Your task to perform on an android device: change keyboard looks Image 0: 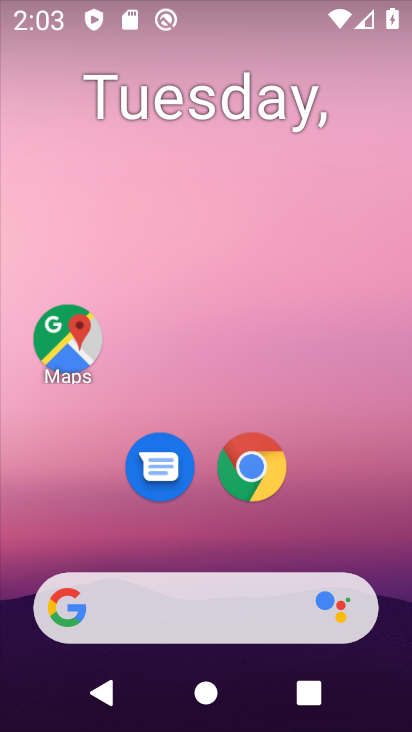
Step 0: drag from (379, 536) to (376, 118)
Your task to perform on an android device: change keyboard looks Image 1: 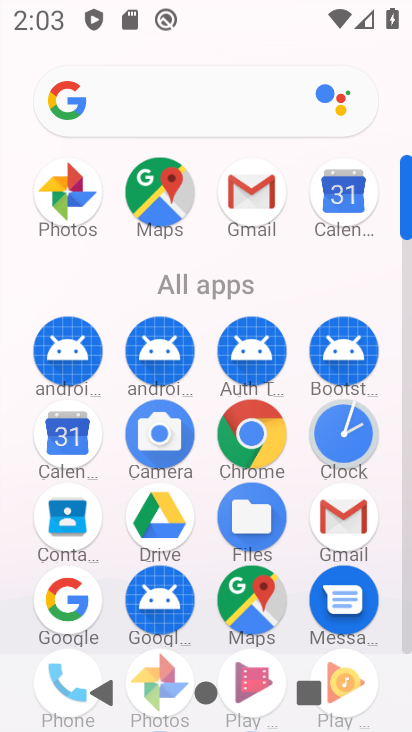
Step 1: drag from (388, 467) to (397, 197)
Your task to perform on an android device: change keyboard looks Image 2: 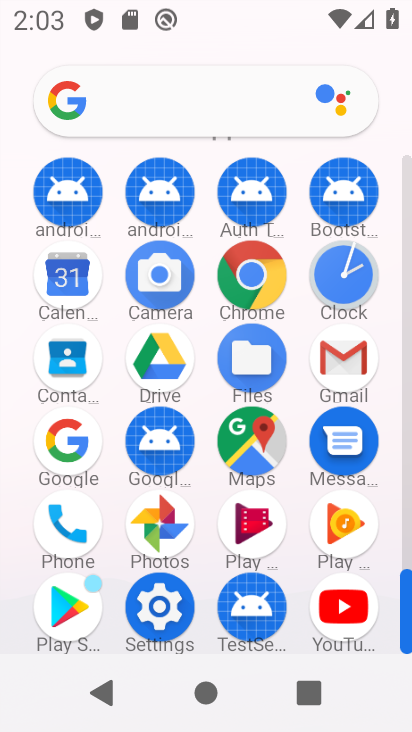
Step 2: click (172, 612)
Your task to perform on an android device: change keyboard looks Image 3: 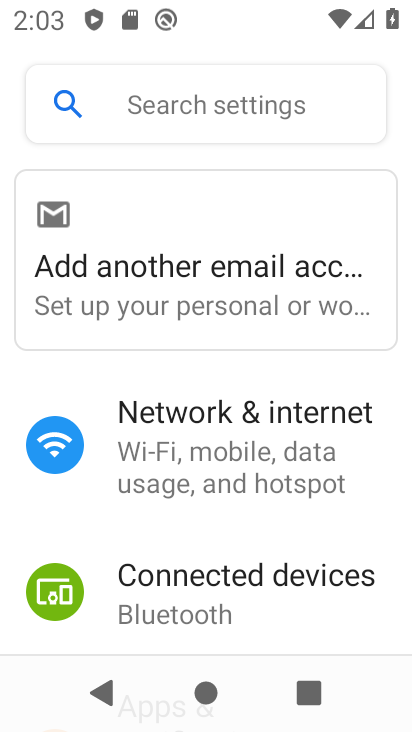
Step 3: drag from (357, 538) to (360, 341)
Your task to perform on an android device: change keyboard looks Image 4: 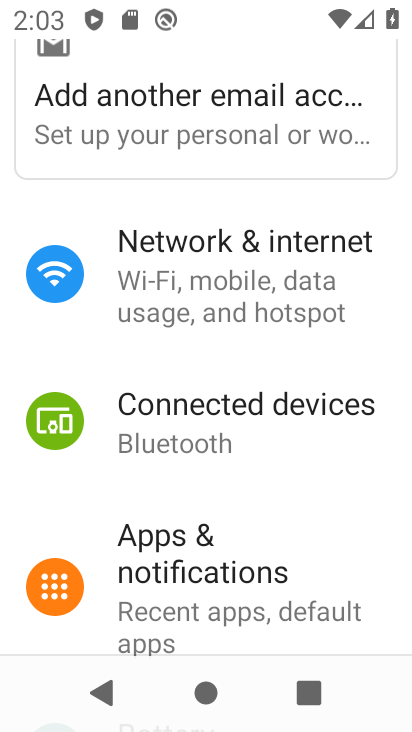
Step 4: drag from (361, 515) to (357, 359)
Your task to perform on an android device: change keyboard looks Image 5: 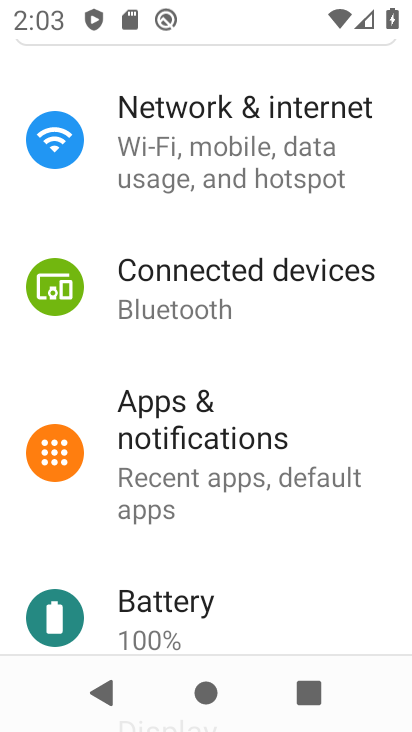
Step 5: drag from (360, 571) to (345, 381)
Your task to perform on an android device: change keyboard looks Image 6: 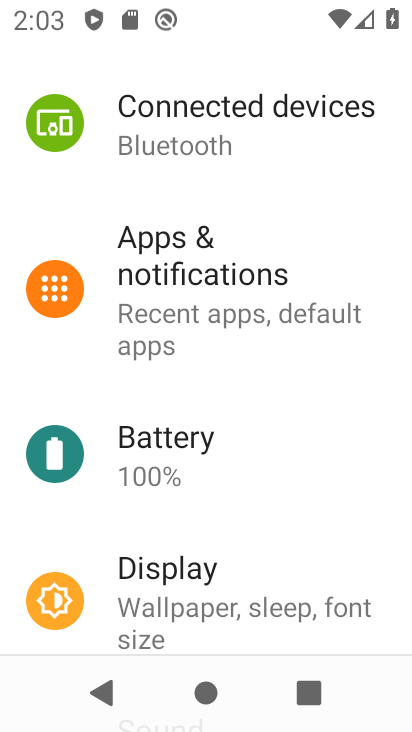
Step 6: drag from (336, 529) to (329, 317)
Your task to perform on an android device: change keyboard looks Image 7: 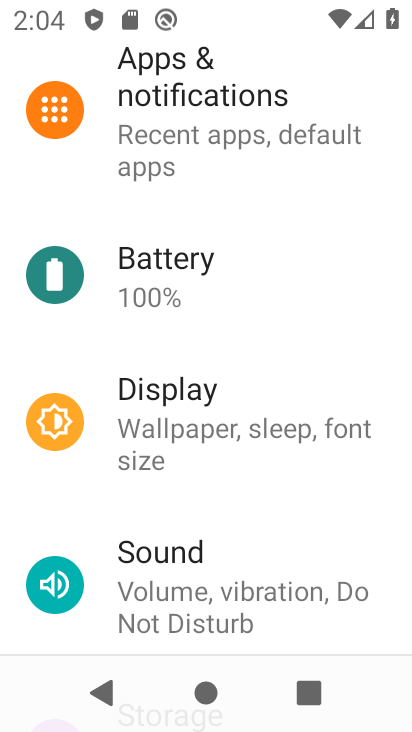
Step 7: drag from (351, 508) to (363, 333)
Your task to perform on an android device: change keyboard looks Image 8: 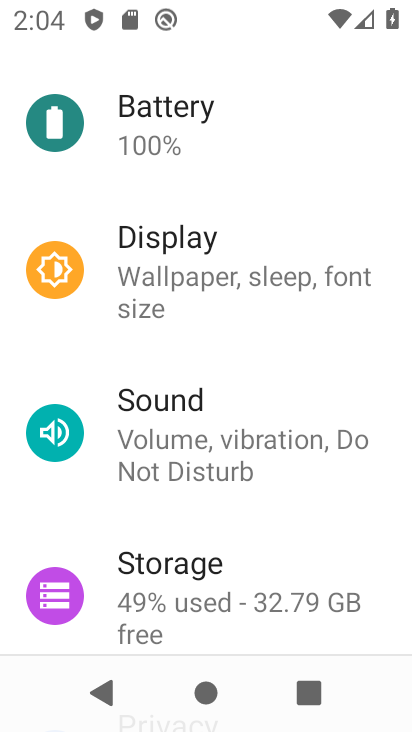
Step 8: drag from (367, 516) to (379, 349)
Your task to perform on an android device: change keyboard looks Image 9: 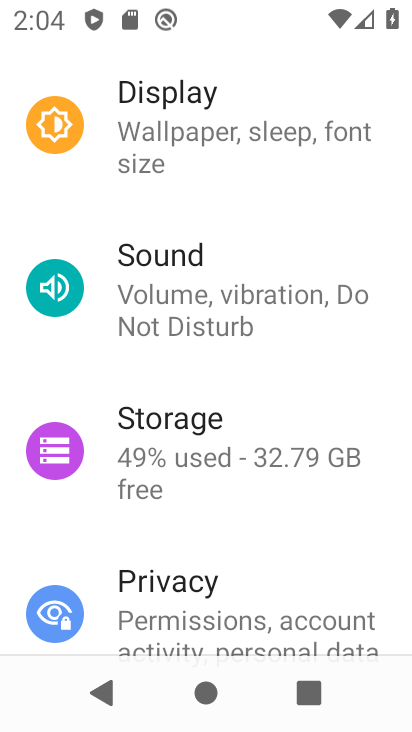
Step 9: drag from (367, 527) to (370, 344)
Your task to perform on an android device: change keyboard looks Image 10: 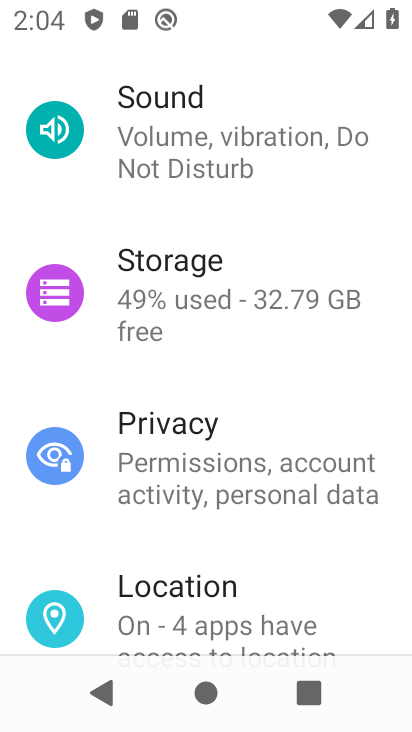
Step 10: drag from (366, 552) to (373, 347)
Your task to perform on an android device: change keyboard looks Image 11: 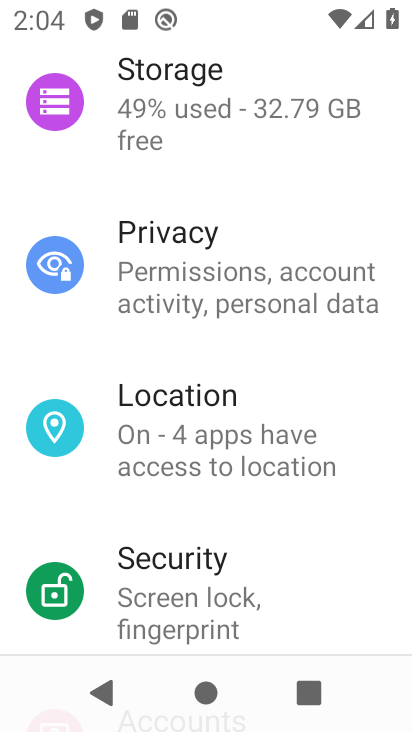
Step 11: drag from (347, 569) to (365, 388)
Your task to perform on an android device: change keyboard looks Image 12: 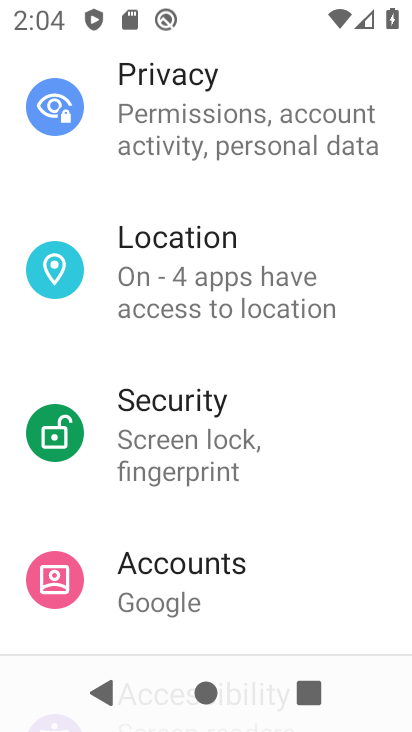
Step 12: drag from (367, 583) to (377, 414)
Your task to perform on an android device: change keyboard looks Image 13: 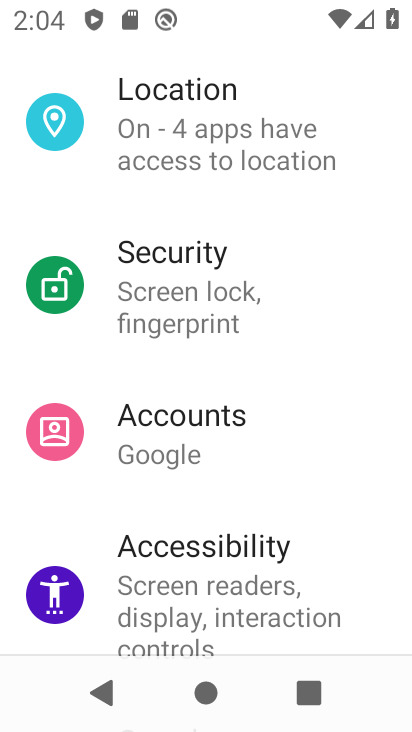
Step 13: drag from (367, 607) to (379, 431)
Your task to perform on an android device: change keyboard looks Image 14: 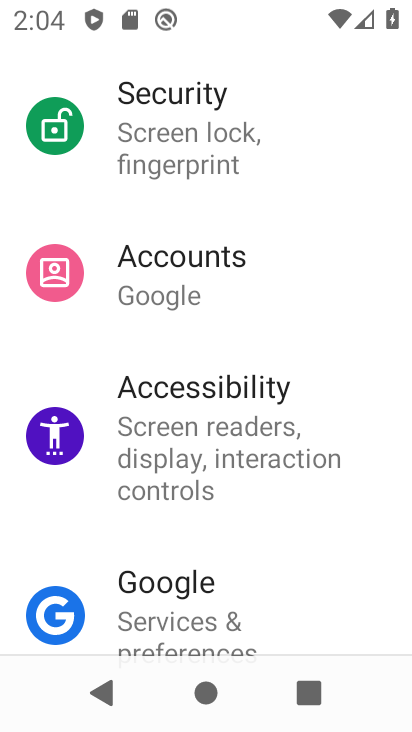
Step 14: drag from (372, 581) to (379, 422)
Your task to perform on an android device: change keyboard looks Image 15: 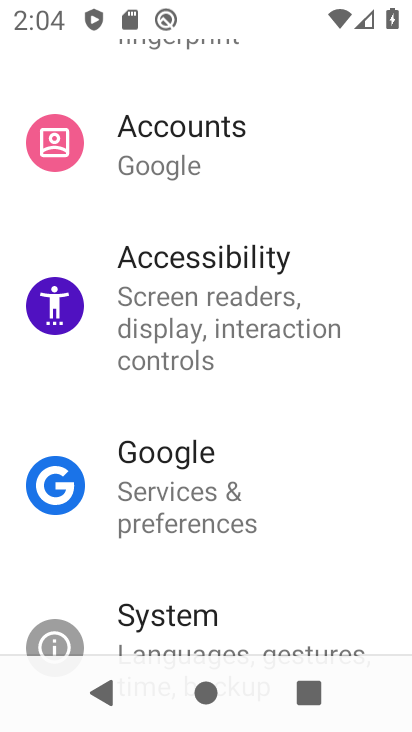
Step 15: drag from (378, 576) to (377, 360)
Your task to perform on an android device: change keyboard looks Image 16: 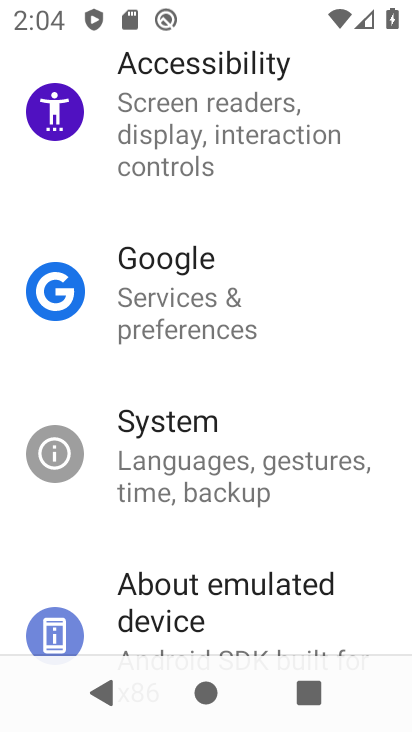
Step 16: click (328, 476)
Your task to perform on an android device: change keyboard looks Image 17: 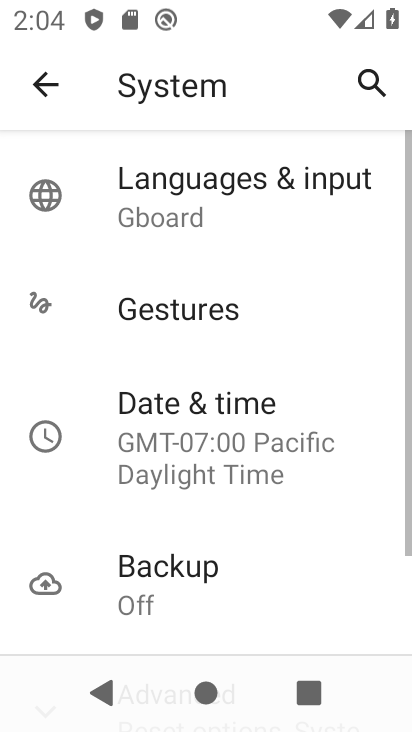
Step 17: drag from (316, 527) to (323, 348)
Your task to perform on an android device: change keyboard looks Image 18: 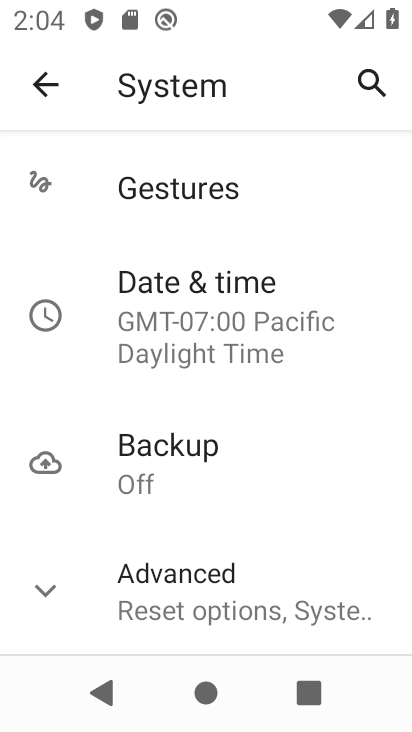
Step 18: drag from (341, 249) to (323, 509)
Your task to perform on an android device: change keyboard looks Image 19: 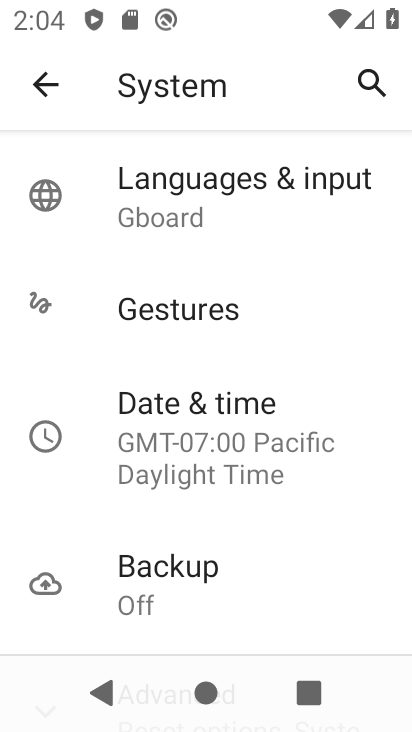
Step 19: click (238, 185)
Your task to perform on an android device: change keyboard looks Image 20: 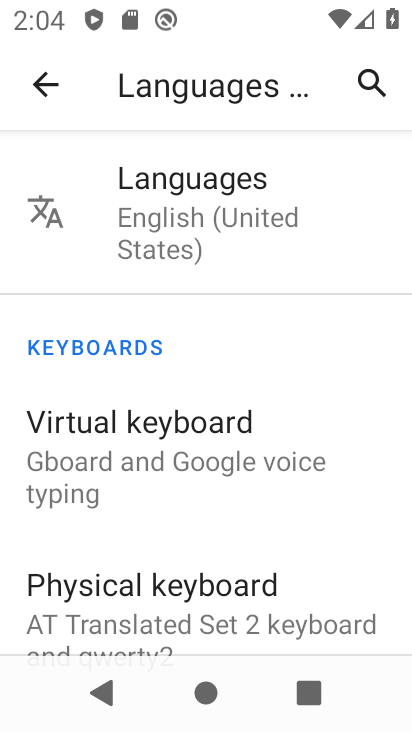
Step 20: click (257, 436)
Your task to perform on an android device: change keyboard looks Image 21: 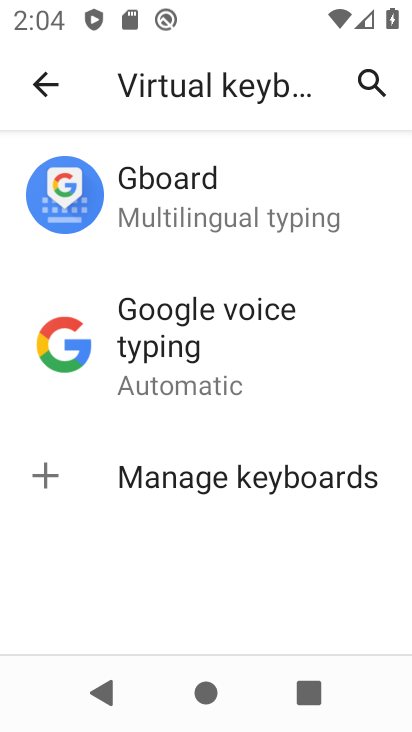
Step 21: click (236, 212)
Your task to perform on an android device: change keyboard looks Image 22: 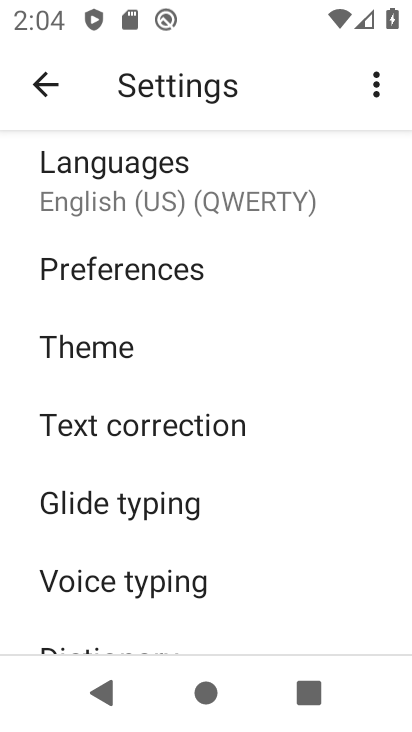
Step 22: click (148, 360)
Your task to perform on an android device: change keyboard looks Image 23: 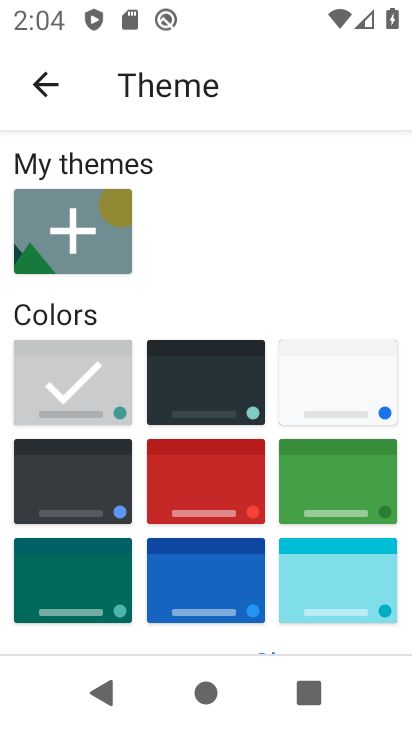
Step 23: click (233, 462)
Your task to perform on an android device: change keyboard looks Image 24: 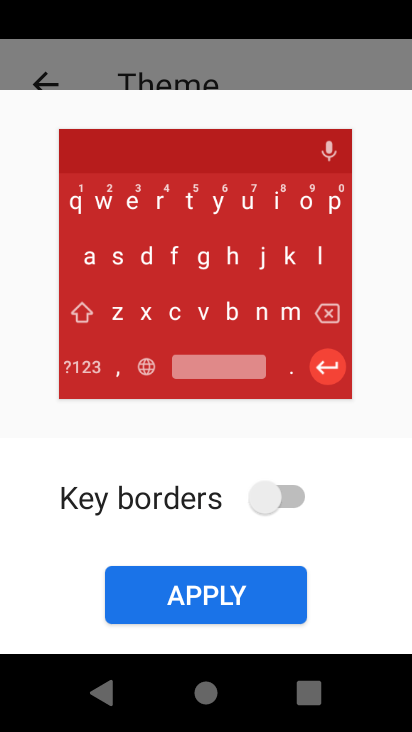
Step 24: click (235, 605)
Your task to perform on an android device: change keyboard looks Image 25: 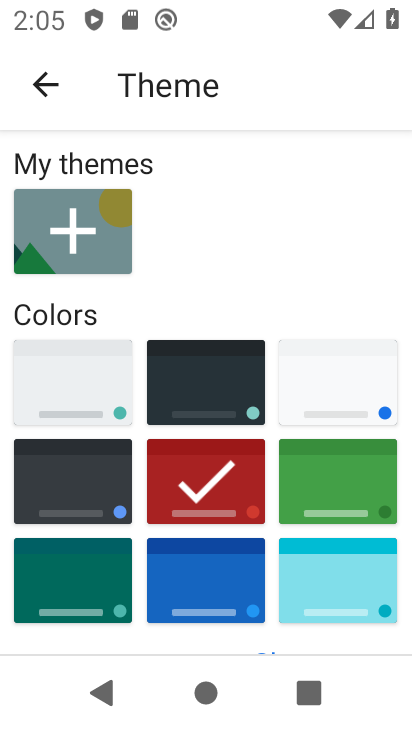
Step 25: task complete